Your task to perform on an android device: What is the recent news? Image 0: 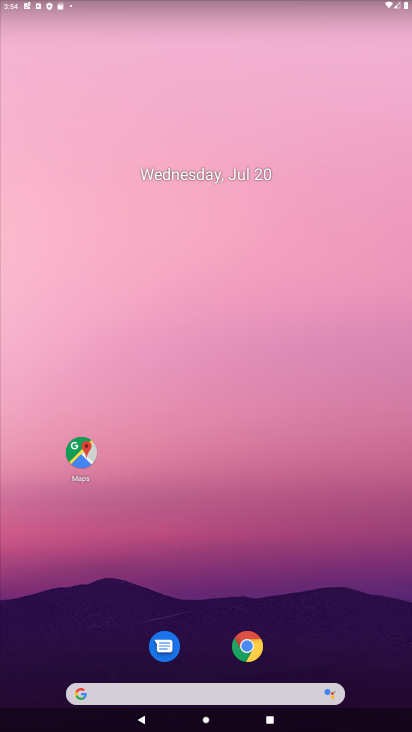
Step 0: drag from (223, 610) to (230, 234)
Your task to perform on an android device: What is the recent news? Image 1: 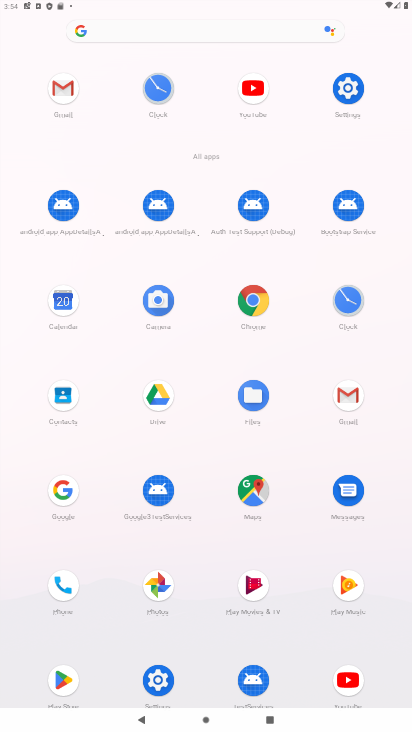
Step 1: click (61, 510)
Your task to perform on an android device: What is the recent news? Image 2: 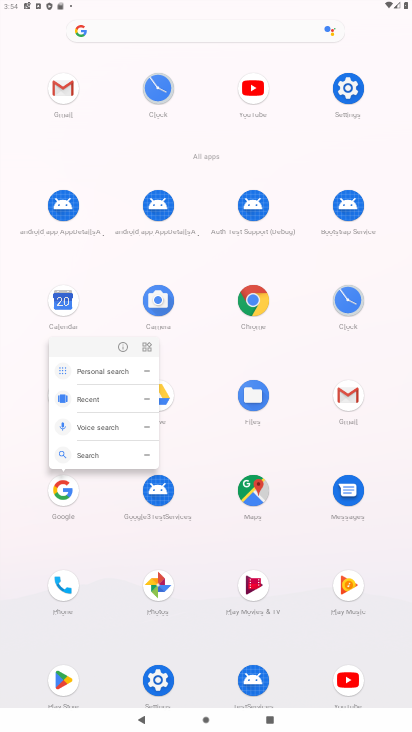
Step 2: click (61, 492)
Your task to perform on an android device: What is the recent news? Image 3: 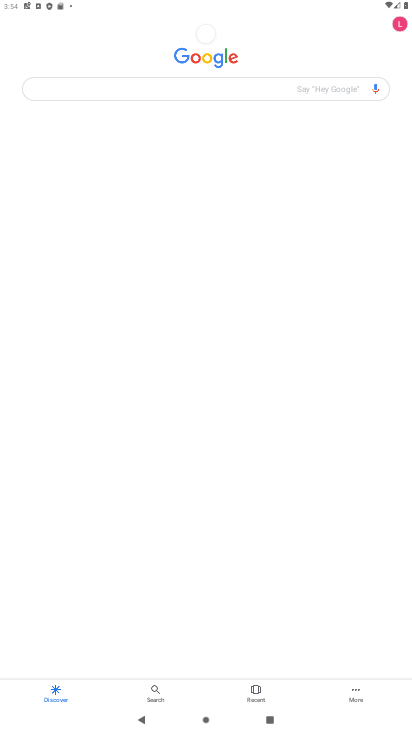
Step 3: click (185, 92)
Your task to perform on an android device: What is the recent news? Image 4: 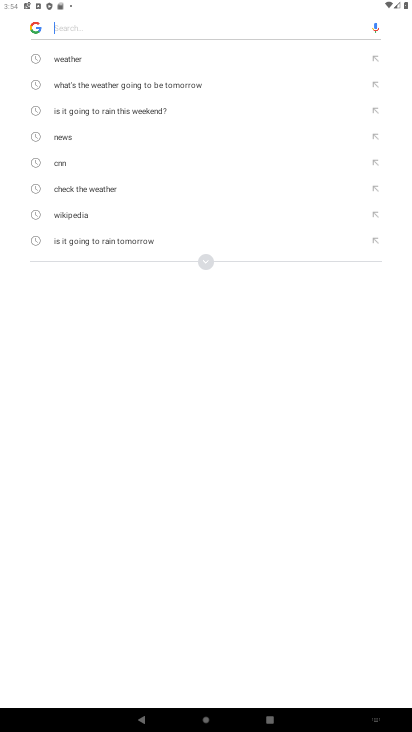
Step 4: click (54, 142)
Your task to perform on an android device: What is the recent news? Image 5: 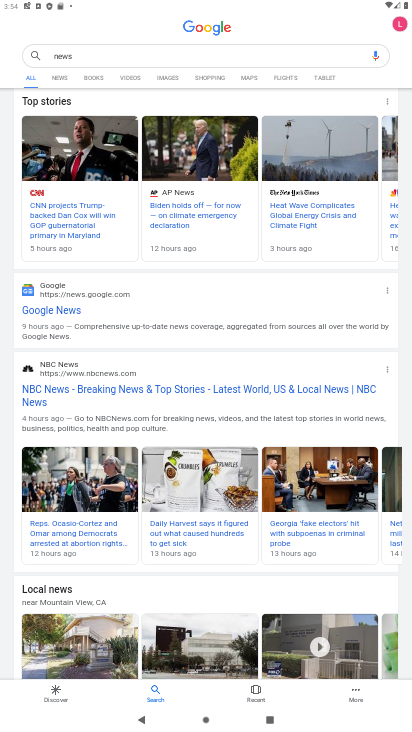
Step 5: click (62, 77)
Your task to perform on an android device: What is the recent news? Image 6: 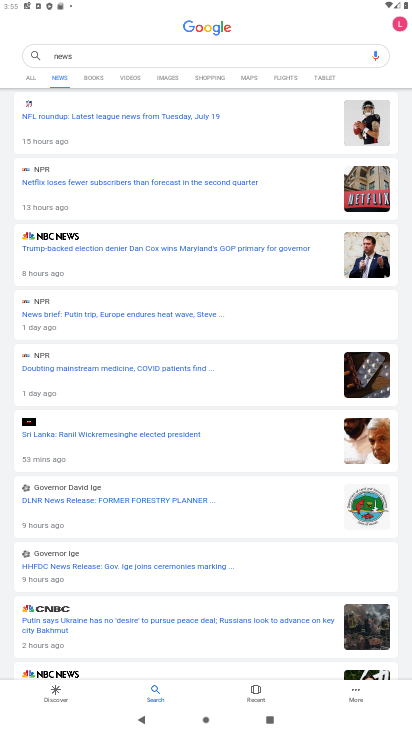
Step 6: task complete